Your task to perform on an android device: toggle data saver in the chrome app Image 0: 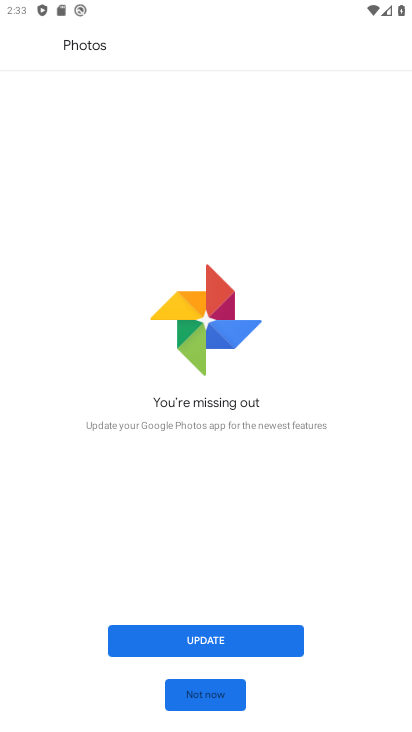
Step 0: press home button
Your task to perform on an android device: toggle data saver in the chrome app Image 1: 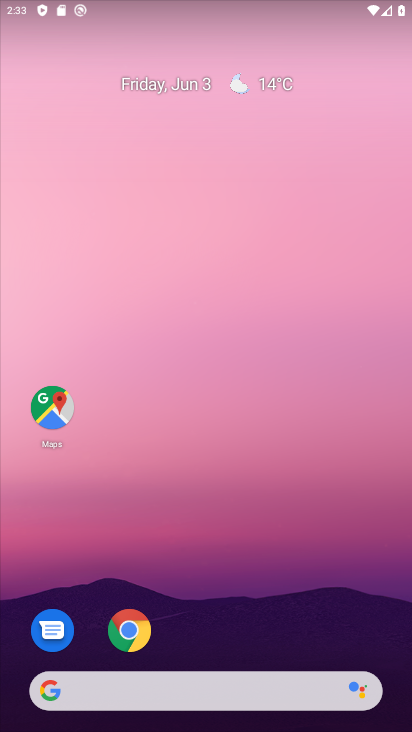
Step 1: click (142, 625)
Your task to perform on an android device: toggle data saver in the chrome app Image 2: 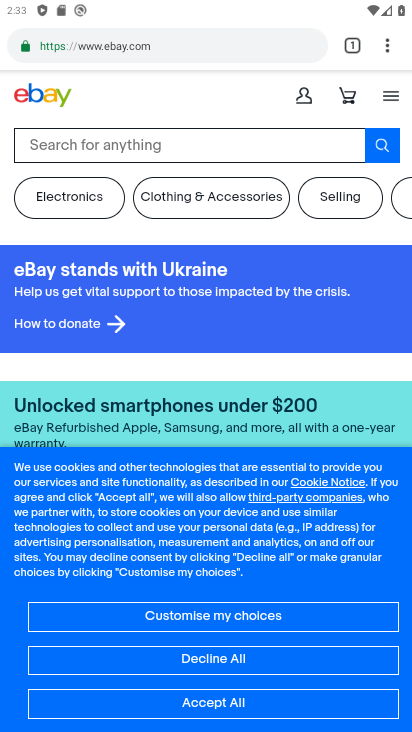
Step 2: click (391, 55)
Your task to perform on an android device: toggle data saver in the chrome app Image 3: 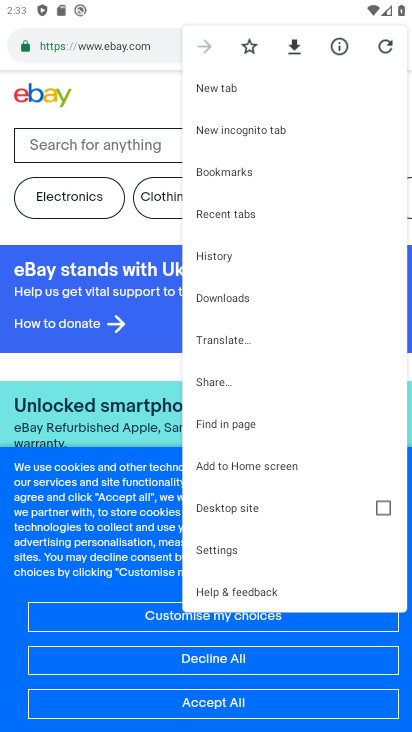
Step 3: click (243, 551)
Your task to perform on an android device: toggle data saver in the chrome app Image 4: 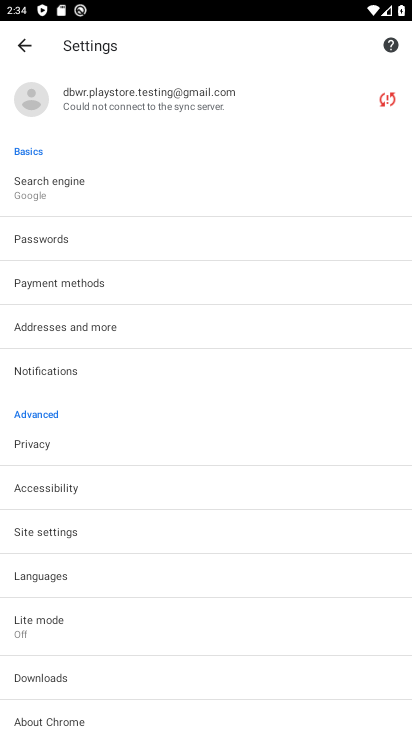
Step 4: click (118, 625)
Your task to perform on an android device: toggle data saver in the chrome app Image 5: 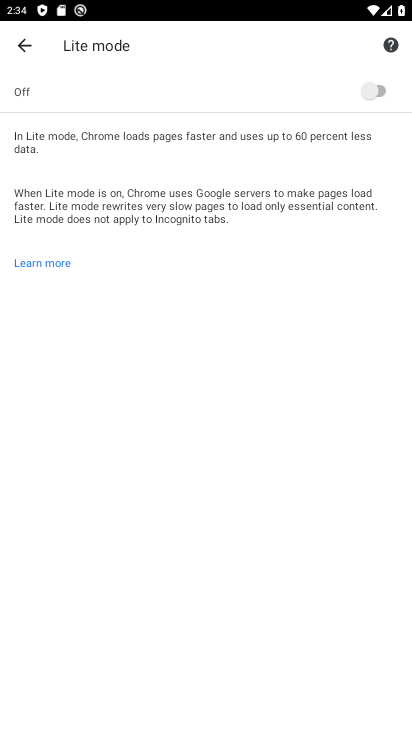
Step 5: click (373, 88)
Your task to perform on an android device: toggle data saver in the chrome app Image 6: 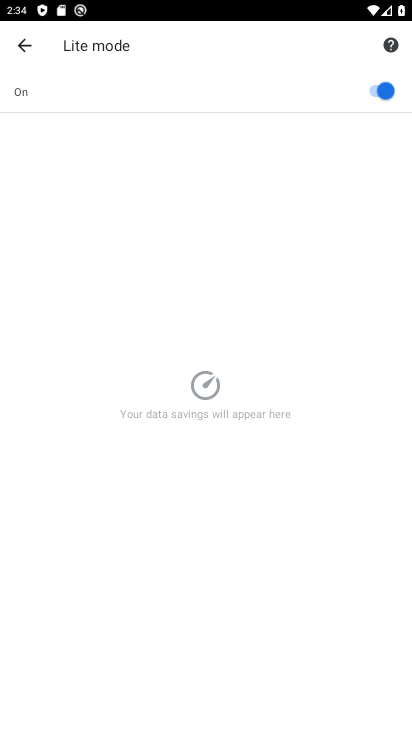
Step 6: task complete